Your task to perform on an android device: change text size in settings app Image 0: 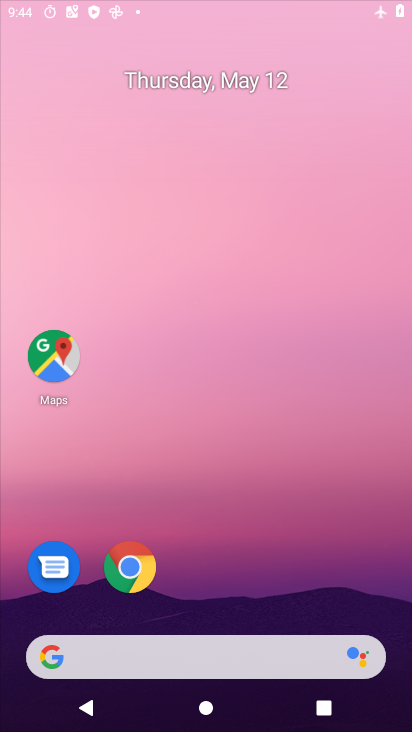
Step 0: drag from (246, 631) to (263, 1)
Your task to perform on an android device: change text size in settings app Image 1: 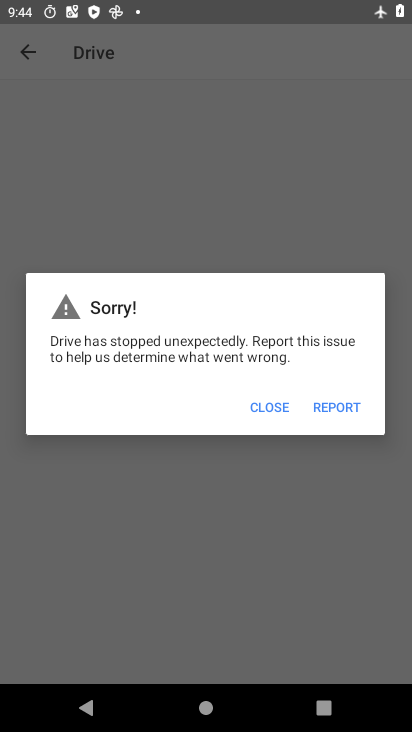
Step 1: press home button
Your task to perform on an android device: change text size in settings app Image 2: 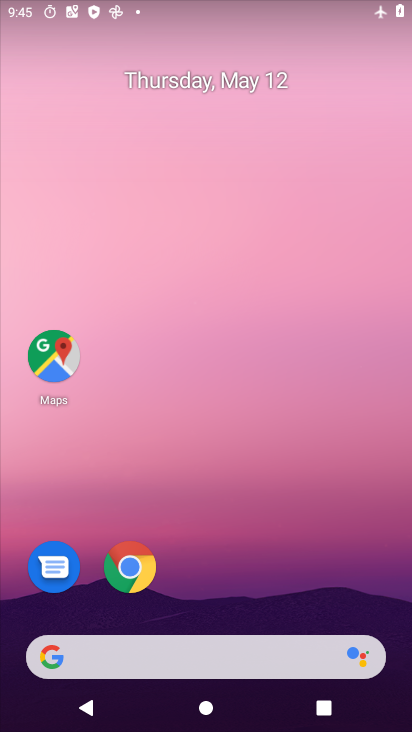
Step 2: drag from (249, 600) to (288, 205)
Your task to perform on an android device: change text size in settings app Image 3: 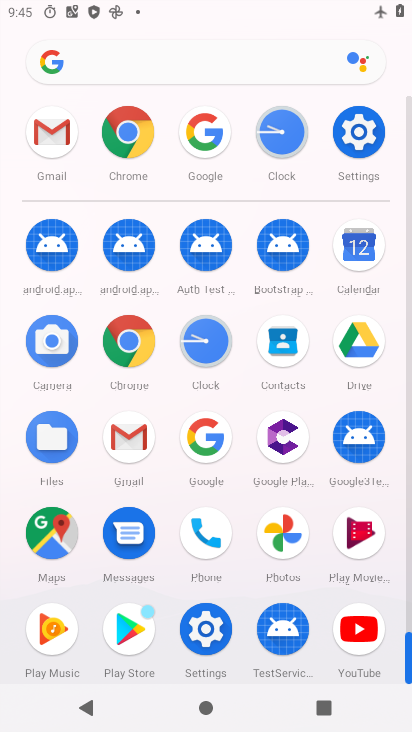
Step 3: click (375, 137)
Your task to perform on an android device: change text size in settings app Image 4: 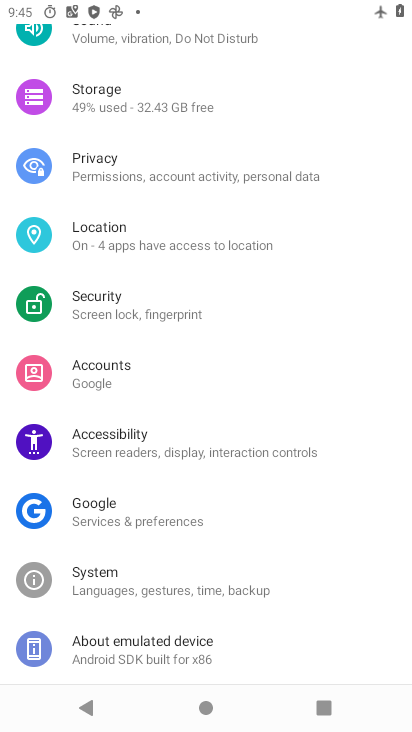
Step 4: drag from (267, 327) to (256, 495)
Your task to perform on an android device: change text size in settings app Image 5: 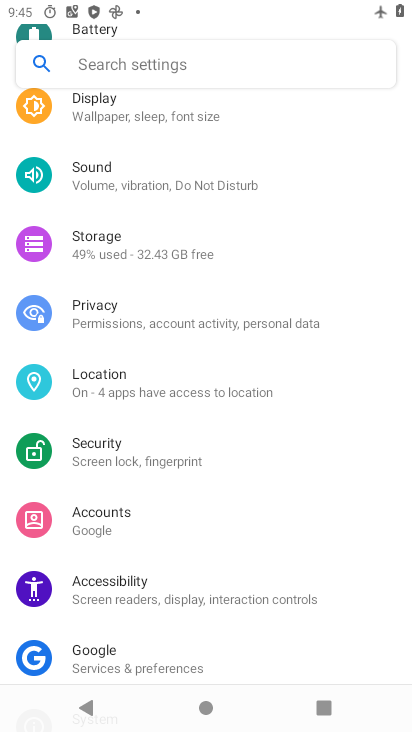
Step 5: drag from (223, 251) to (223, 434)
Your task to perform on an android device: change text size in settings app Image 6: 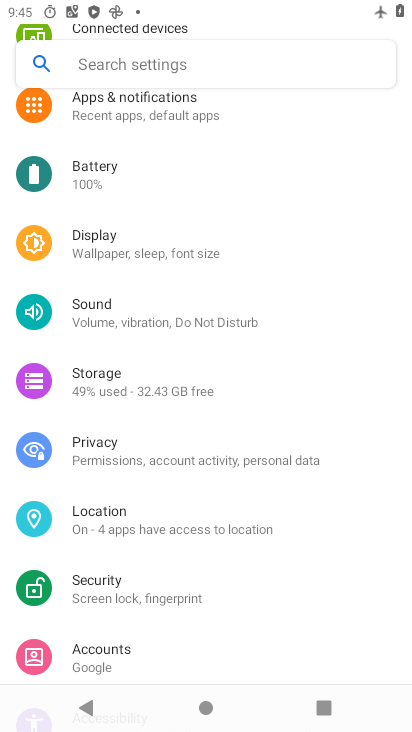
Step 6: click (179, 256)
Your task to perform on an android device: change text size in settings app Image 7: 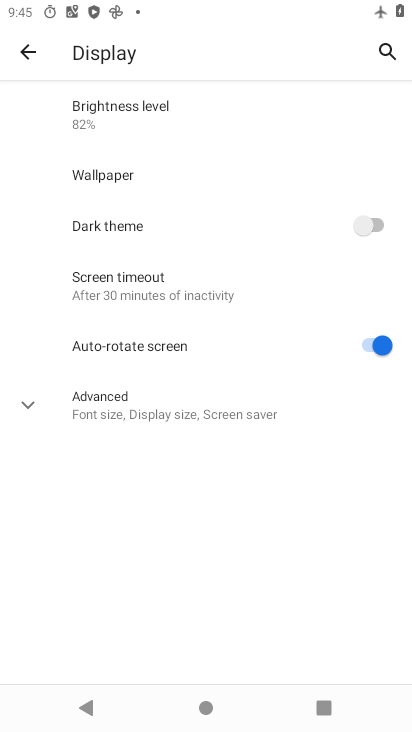
Step 7: click (172, 413)
Your task to perform on an android device: change text size in settings app Image 8: 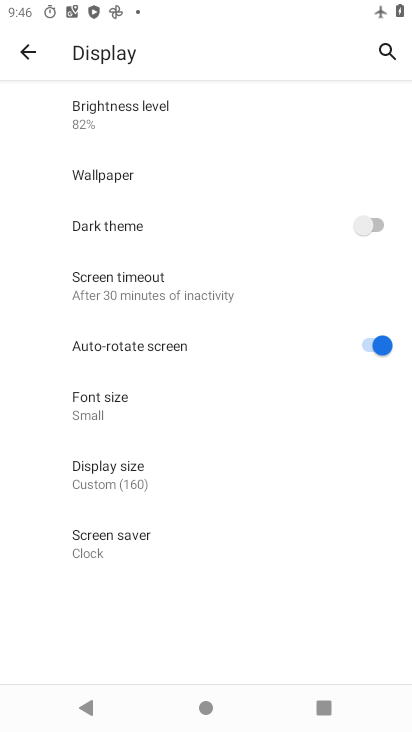
Step 8: click (145, 415)
Your task to perform on an android device: change text size in settings app Image 9: 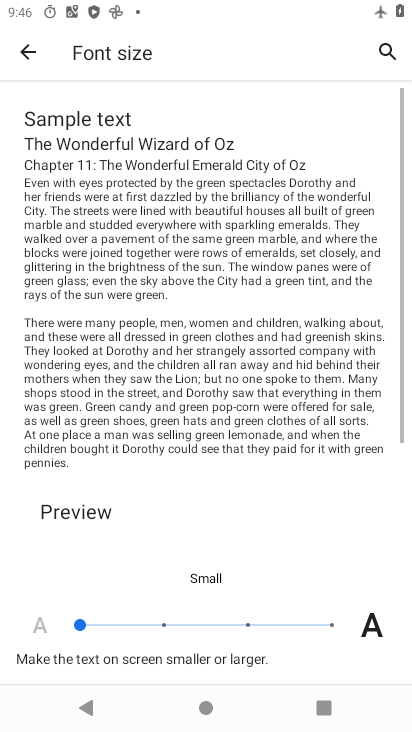
Step 9: click (173, 625)
Your task to perform on an android device: change text size in settings app Image 10: 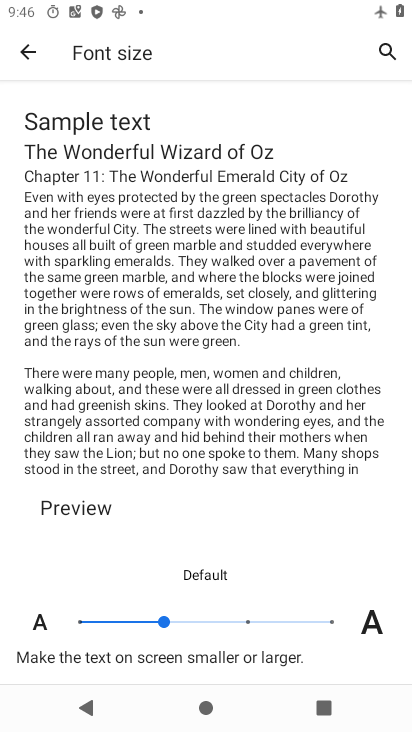
Step 10: task complete